Your task to perform on an android device: Open Youtube and go to "Your channel" Image 0: 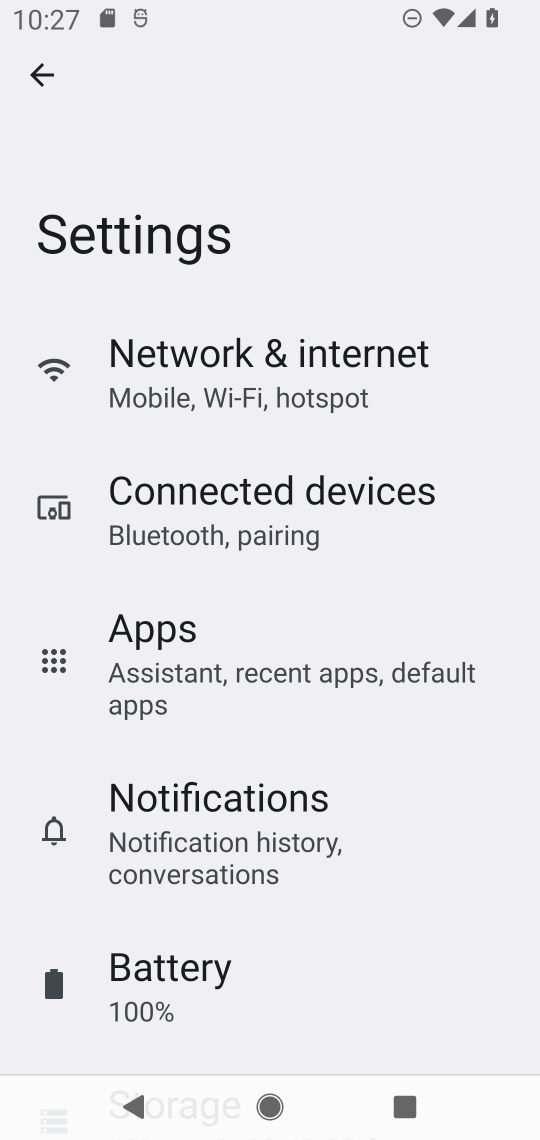
Step 0: press home button
Your task to perform on an android device: Open Youtube and go to "Your channel" Image 1: 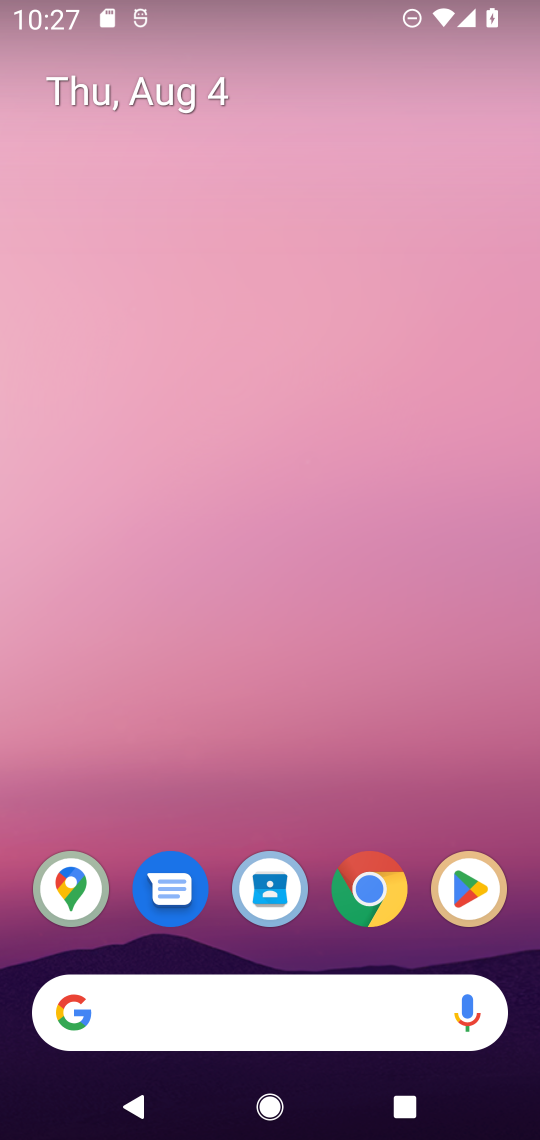
Step 1: drag from (362, 780) to (368, 340)
Your task to perform on an android device: Open Youtube and go to "Your channel" Image 2: 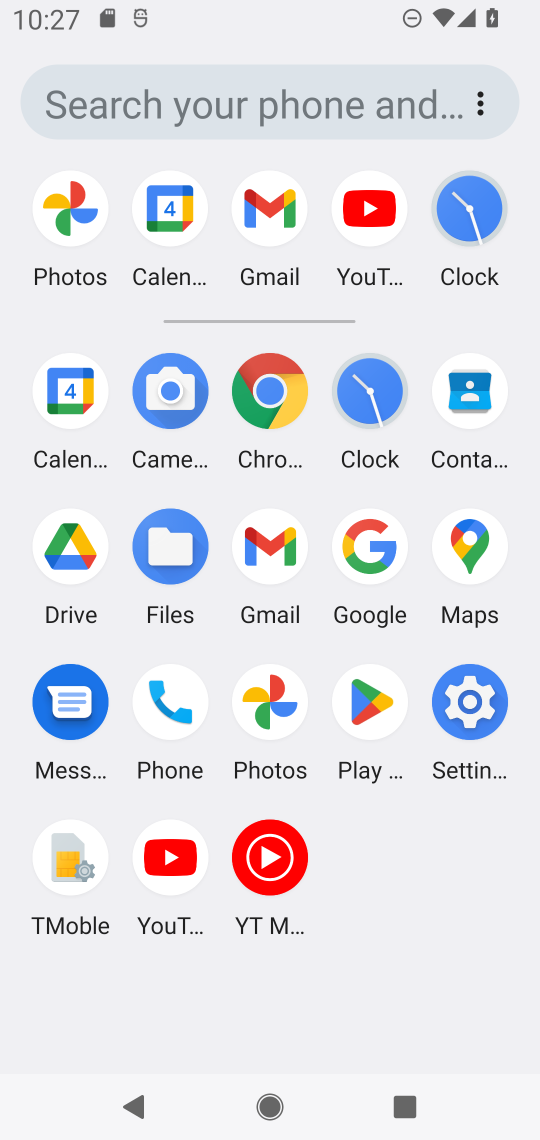
Step 2: click (374, 206)
Your task to perform on an android device: Open Youtube and go to "Your channel" Image 3: 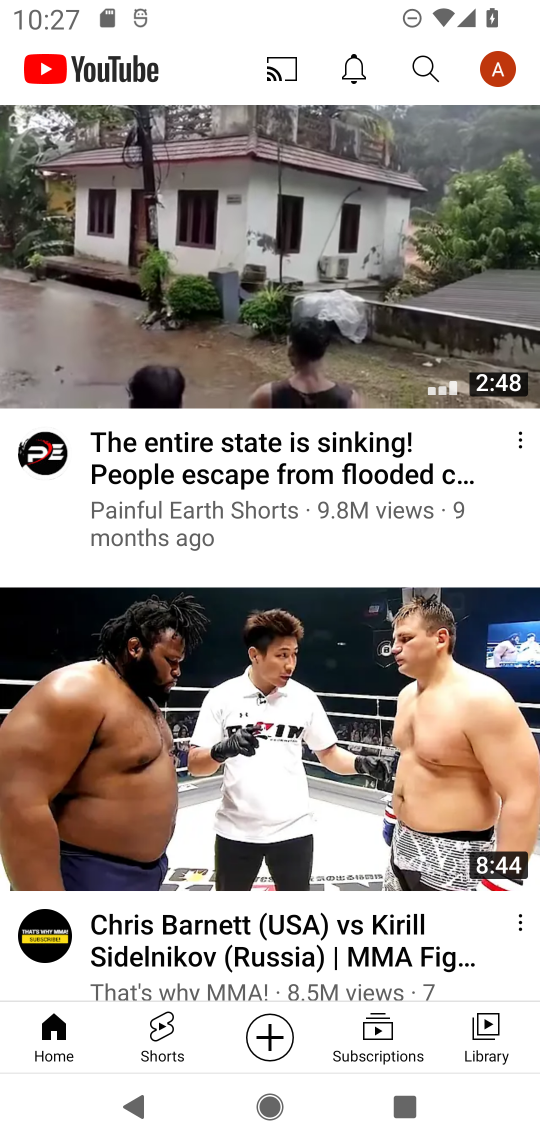
Step 3: click (498, 65)
Your task to perform on an android device: Open Youtube and go to "Your channel" Image 4: 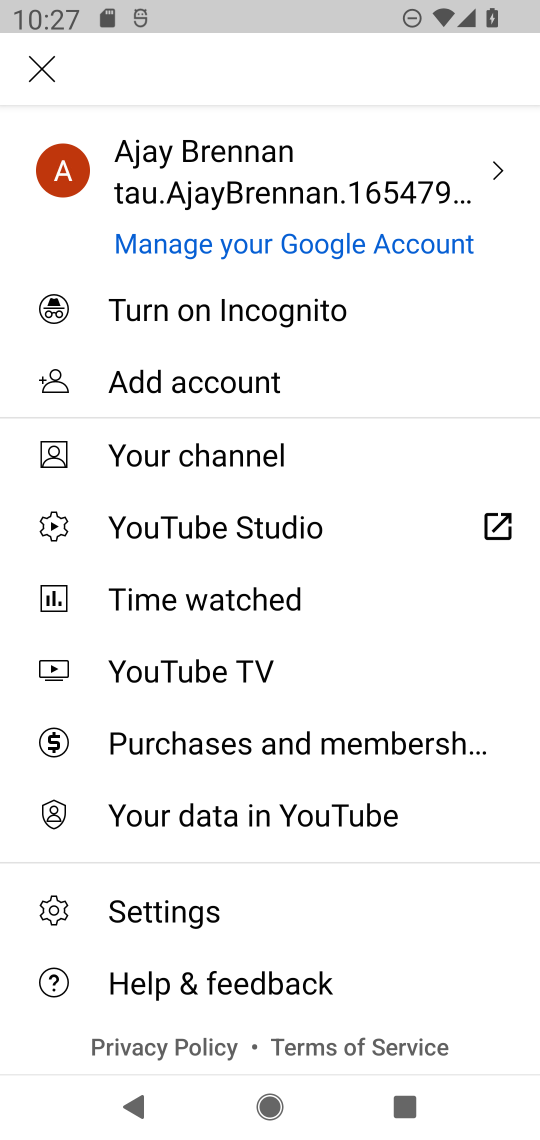
Step 4: click (250, 464)
Your task to perform on an android device: Open Youtube and go to "Your channel" Image 5: 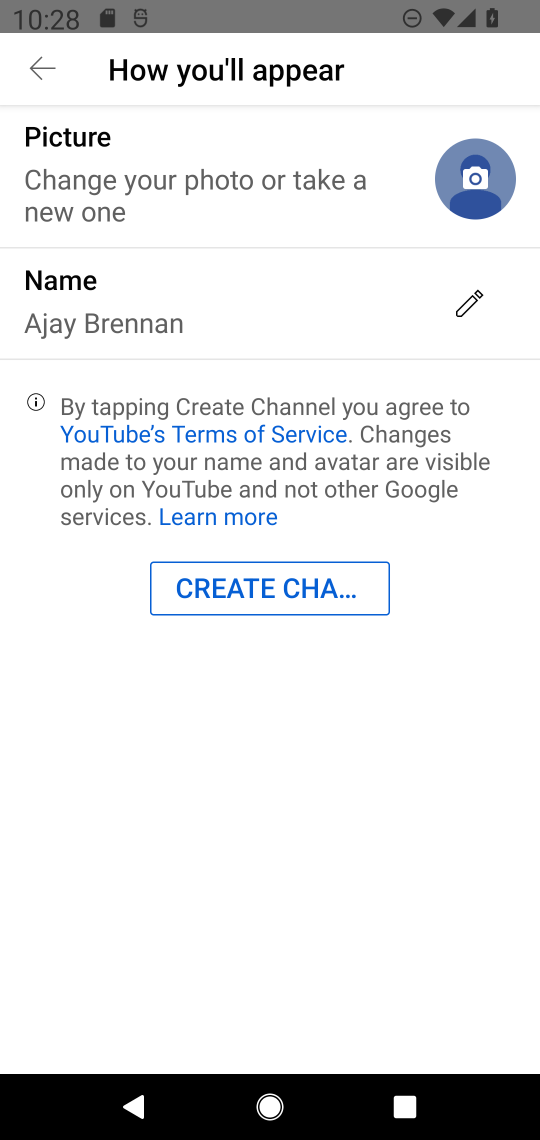
Step 5: task complete